Your task to perform on an android device: What's the weather today? Image 0: 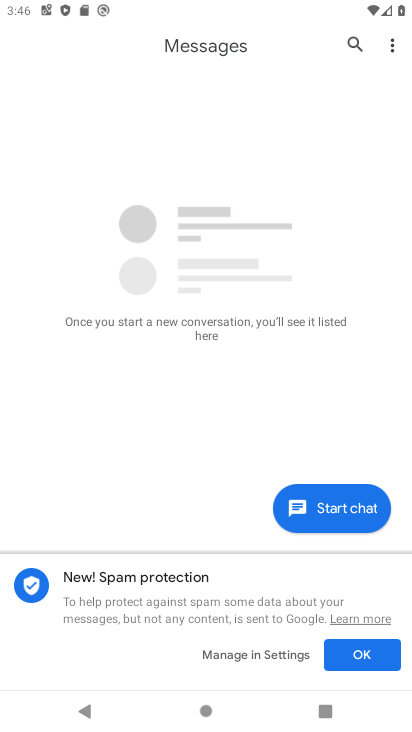
Step 0: press home button
Your task to perform on an android device: What's the weather today? Image 1: 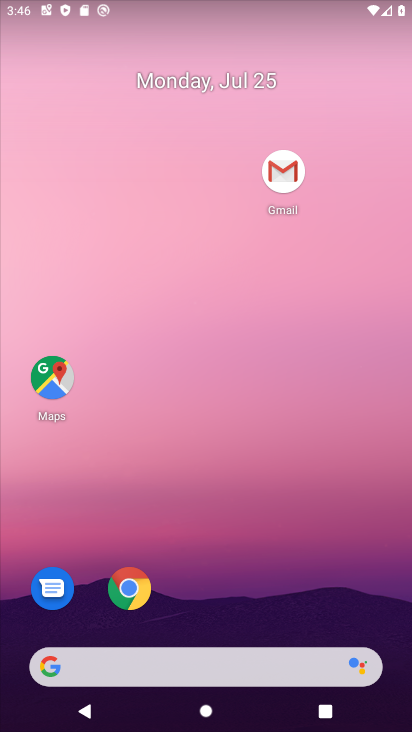
Step 1: drag from (382, 575) to (345, 58)
Your task to perform on an android device: What's the weather today? Image 2: 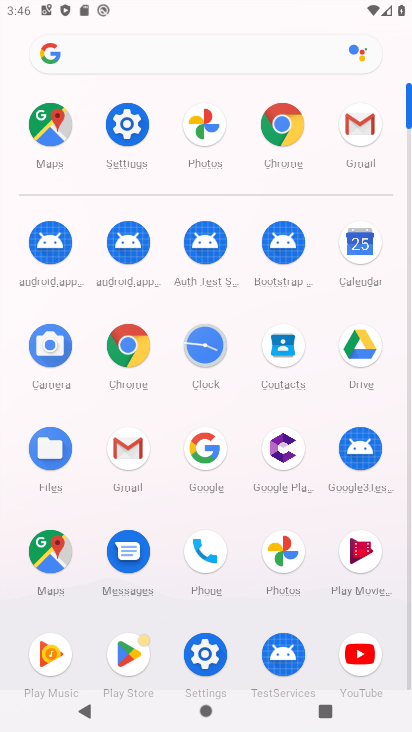
Step 2: click (280, 128)
Your task to perform on an android device: What's the weather today? Image 3: 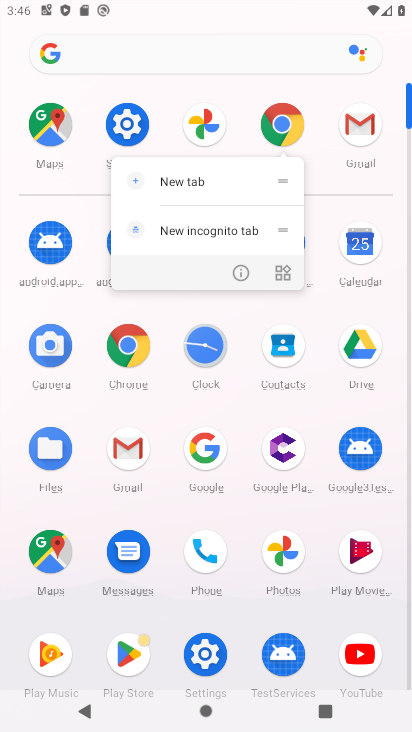
Step 3: click (280, 128)
Your task to perform on an android device: What's the weather today? Image 4: 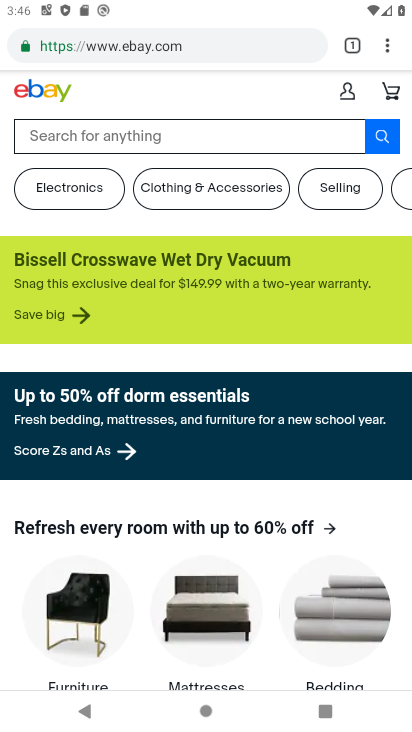
Step 4: click (242, 46)
Your task to perform on an android device: What's the weather today? Image 5: 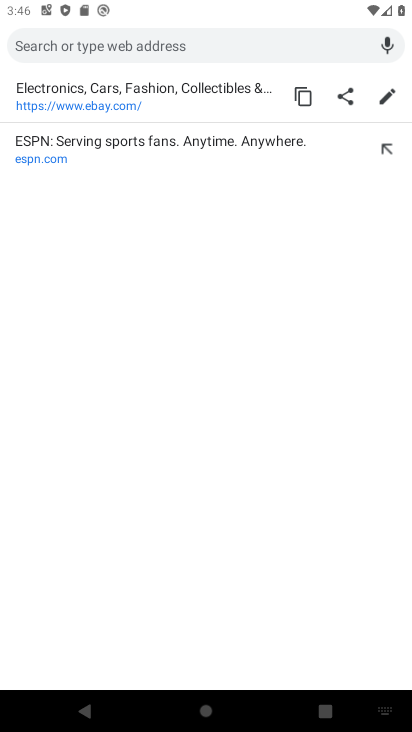
Step 5: type "weather"
Your task to perform on an android device: What's the weather today? Image 6: 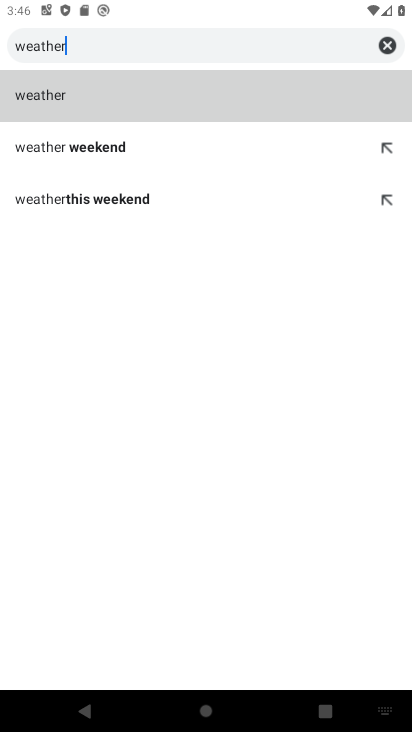
Step 6: click (60, 79)
Your task to perform on an android device: What's the weather today? Image 7: 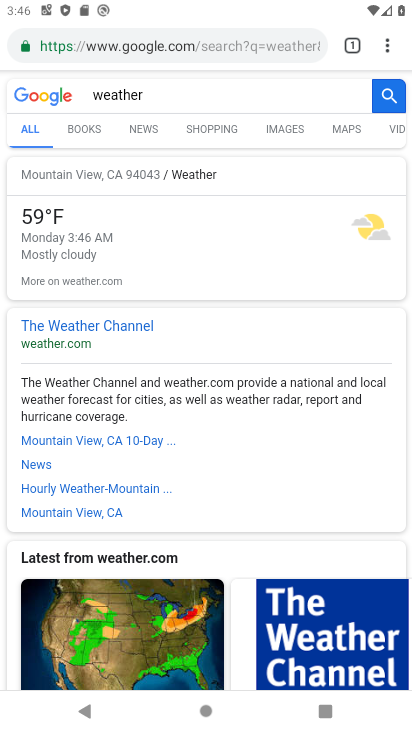
Step 7: task complete